Your task to perform on an android device: turn off translation in the chrome app Image 0: 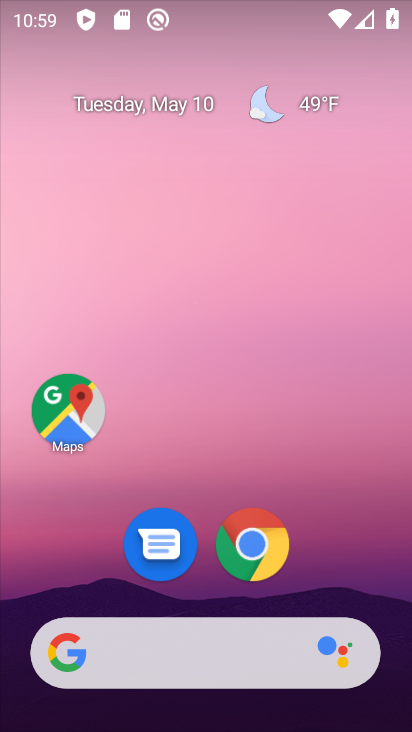
Step 0: click (251, 556)
Your task to perform on an android device: turn off translation in the chrome app Image 1: 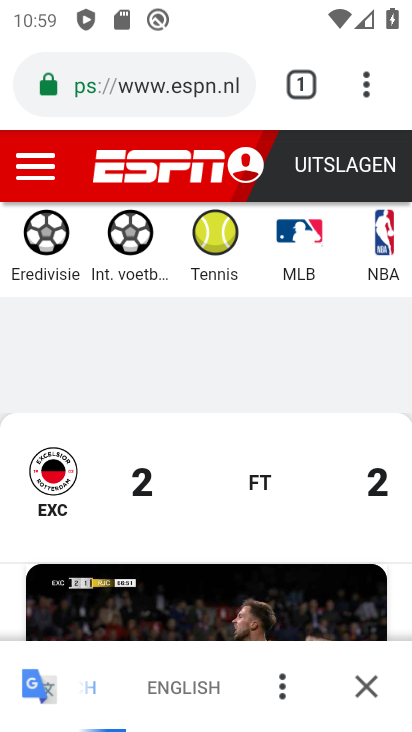
Step 1: drag from (386, 94) to (274, 614)
Your task to perform on an android device: turn off translation in the chrome app Image 2: 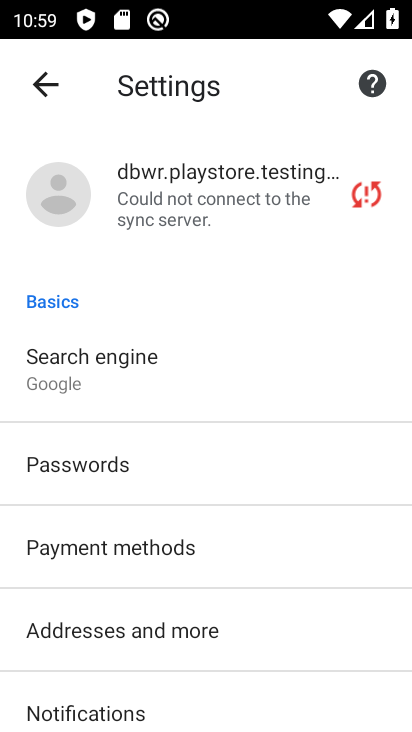
Step 2: drag from (201, 612) to (255, 341)
Your task to perform on an android device: turn off translation in the chrome app Image 3: 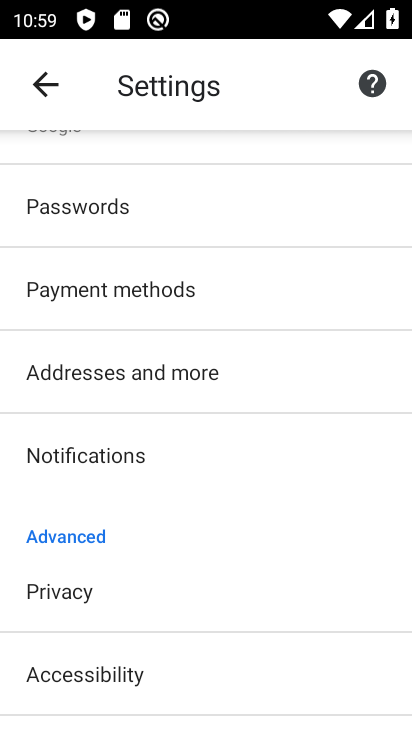
Step 3: drag from (193, 654) to (254, 338)
Your task to perform on an android device: turn off translation in the chrome app Image 4: 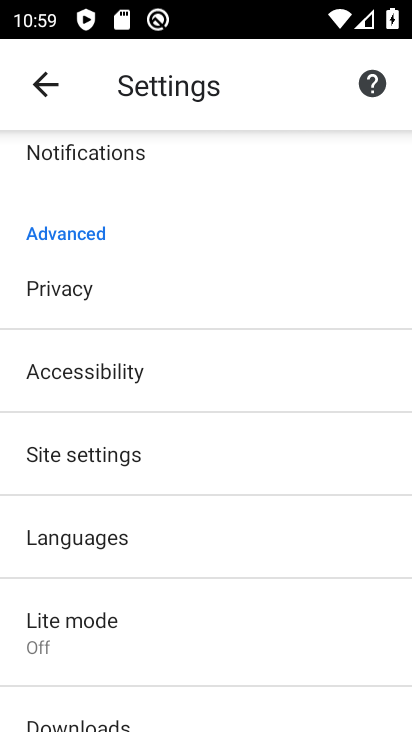
Step 4: click (162, 533)
Your task to perform on an android device: turn off translation in the chrome app Image 5: 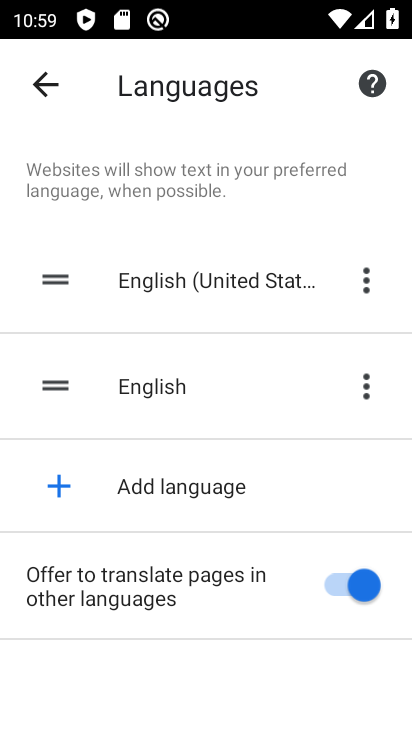
Step 5: click (335, 586)
Your task to perform on an android device: turn off translation in the chrome app Image 6: 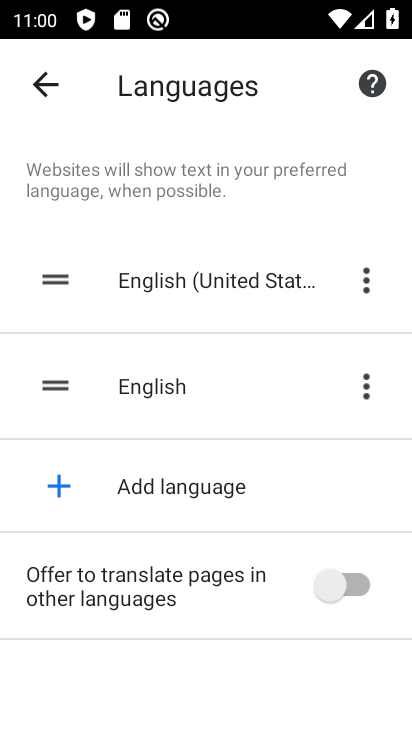
Step 6: task complete